Your task to perform on an android device: install app "PUBG MOBILE" Image 0: 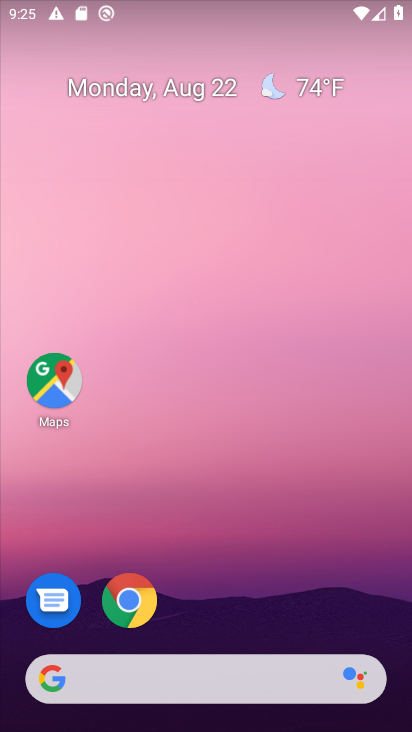
Step 0: drag from (187, 401) to (193, 157)
Your task to perform on an android device: install app "PUBG MOBILE" Image 1: 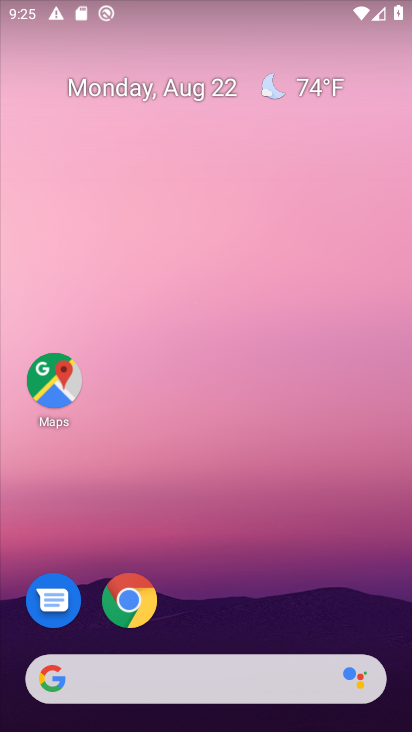
Step 1: drag from (224, 618) to (246, 208)
Your task to perform on an android device: install app "PUBG MOBILE" Image 2: 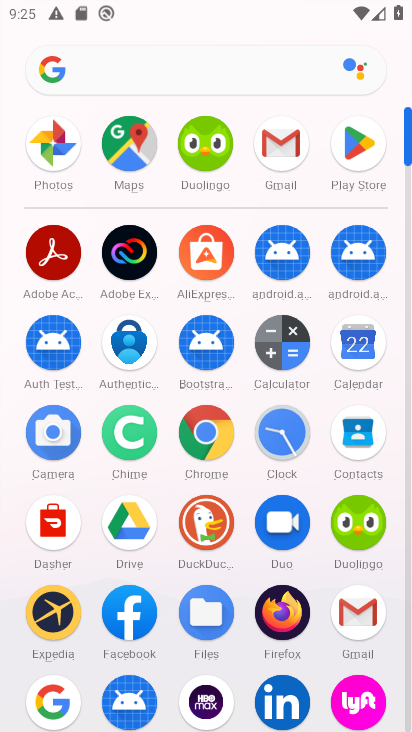
Step 2: click (344, 132)
Your task to perform on an android device: install app "PUBG MOBILE" Image 3: 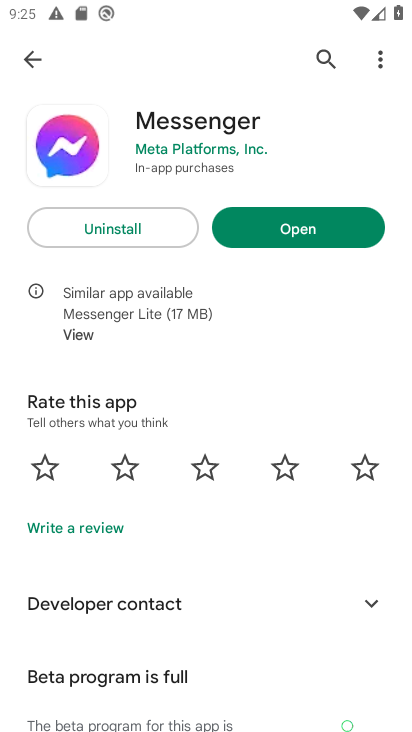
Step 3: click (318, 61)
Your task to perform on an android device: install app "PUBG MOBILE" Image 4: 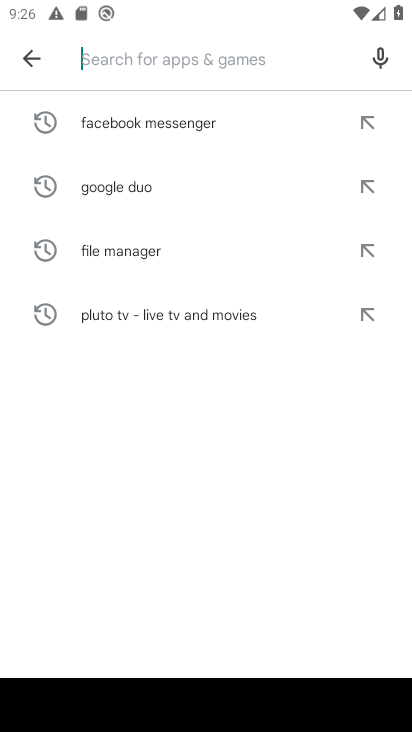
Step 4: type "PUBG MOBILE"
Your task to perform on an android device: install app "PUBG MOBILE" Image 5: 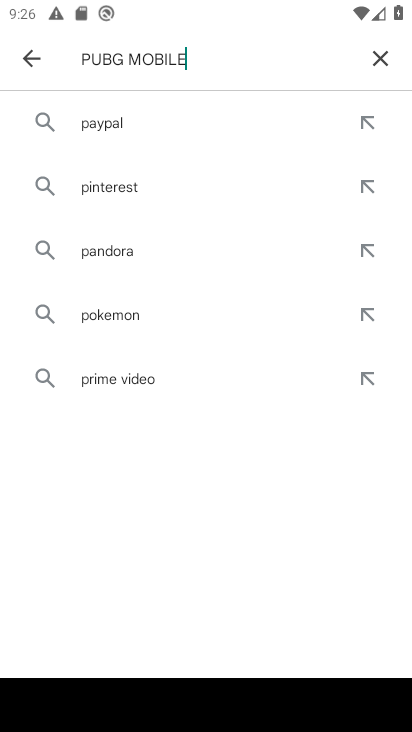
Step 5: type ""
Your task to perform on an android device: install app "PUBG MOBILE" Image 6: 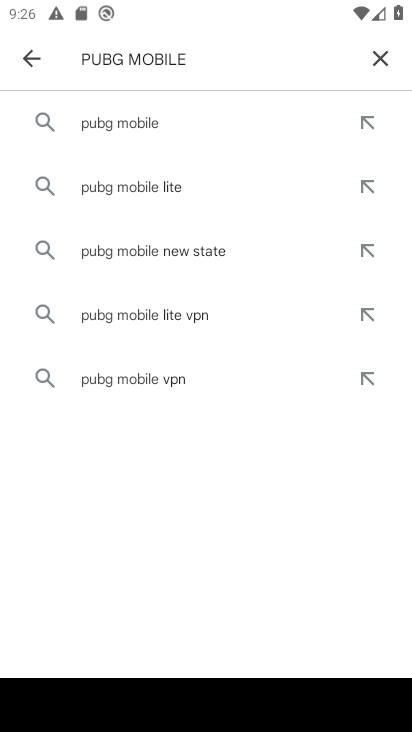
Step 6: click (140, 122)
Your task to perform on an android device: install app "PUBG MOBILE" Image 7: 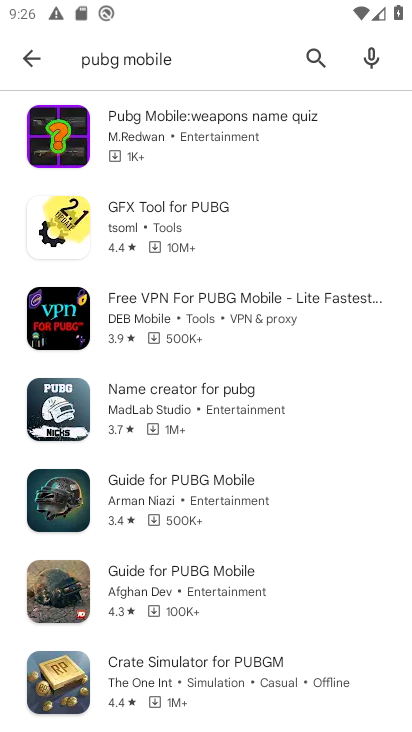
Step 7: task complete